Your task to perform on an android device: Open Android settings Image 0: 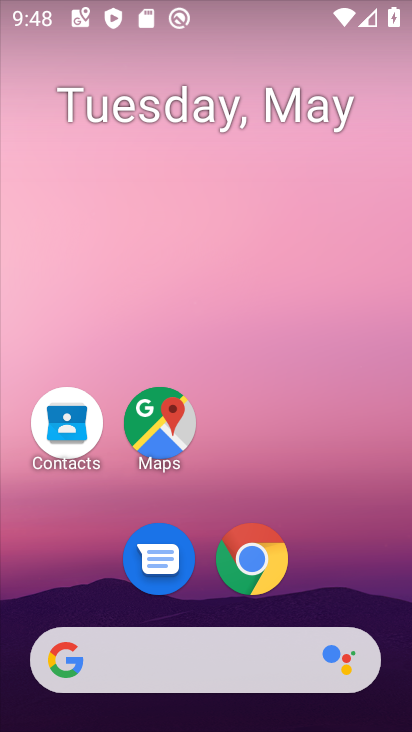
Step 0: press home button
Your task to perform on an android device: Open Android settings Image 1: 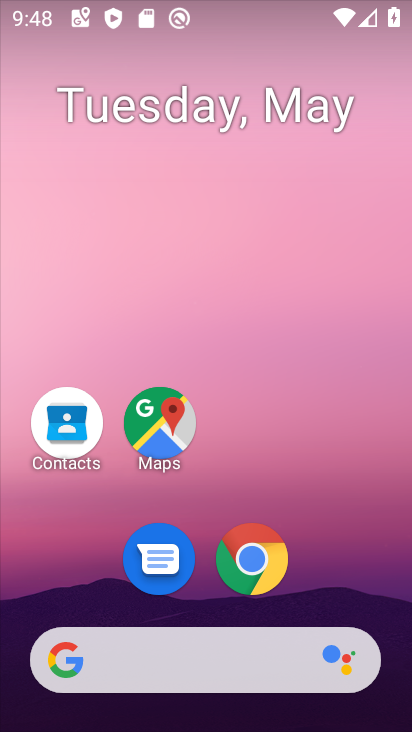
Step 1: drag from (388, 579) to (324, 71)
Your task to perform on an android device: Open Android settings Image 2: 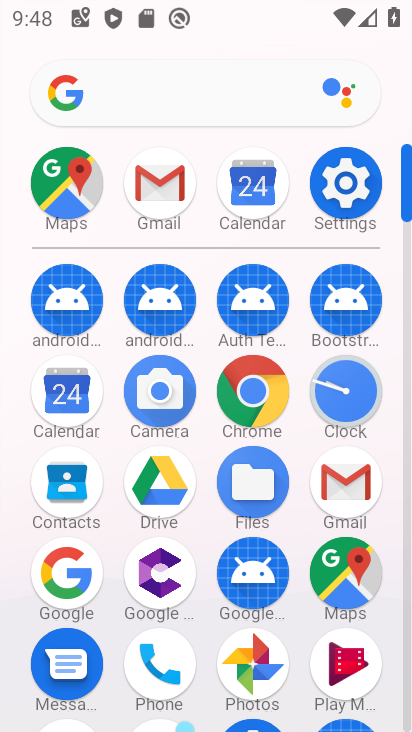
Step 2: click (337, 193)
Your task to perform on an android device: Open Android settings Image 3: 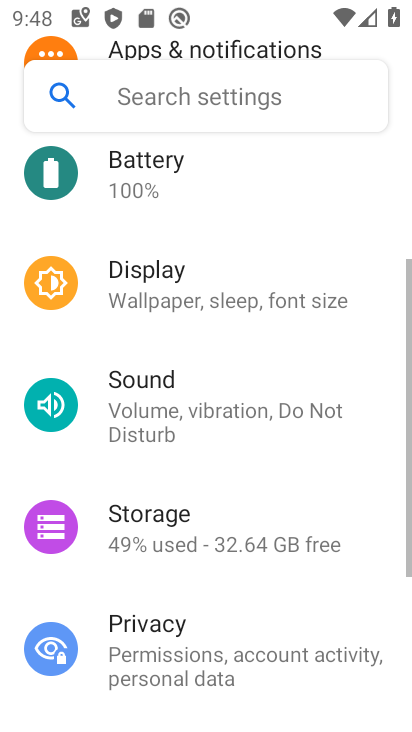
Step 3: task complete